Your task to perform on an android device: allow cookies in the chrome app Image 0: 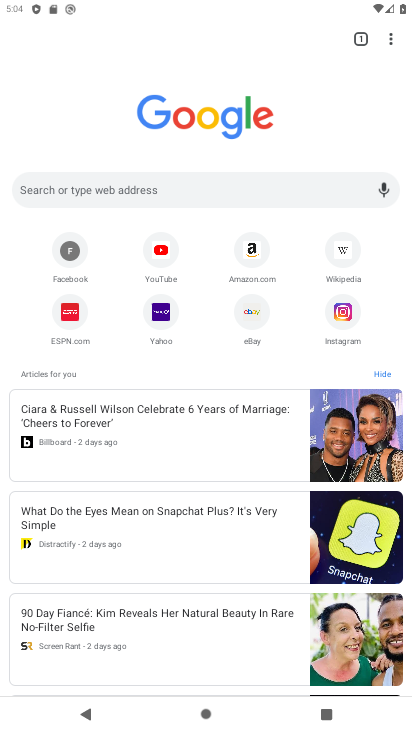
Step 0: press home button
Your task to perform on an android device: allow cookies in the chrome app Image 1: 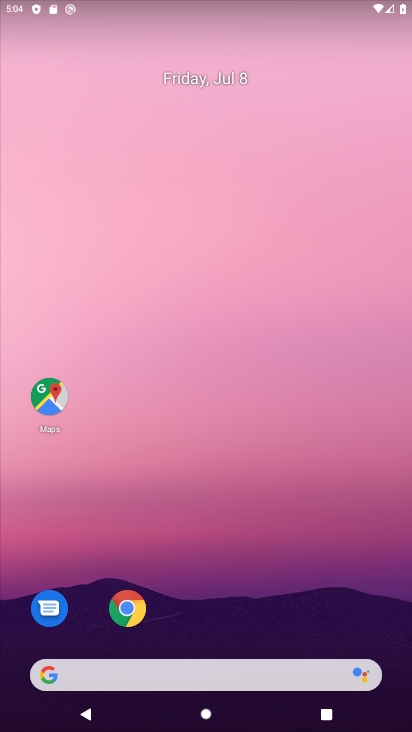
Step 1: drag from (104, 673) to (178, 183)
Your task to perform on an android device: allow cookies in the chrome app Image 2: 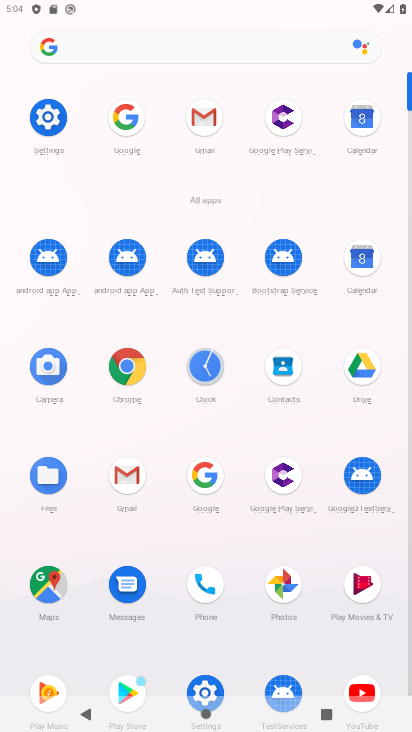
Step 2: click (127, 381)
Your task to perform on an android device: allow cookies in the chrome app Image 3: 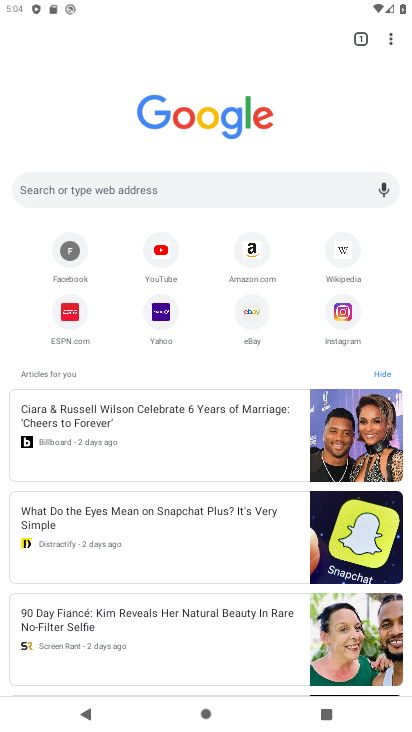
Step 3: drag from (389, 34) to (256, 330)
Your task to perform on an android device: allow cookies in the chrome app Image 4: 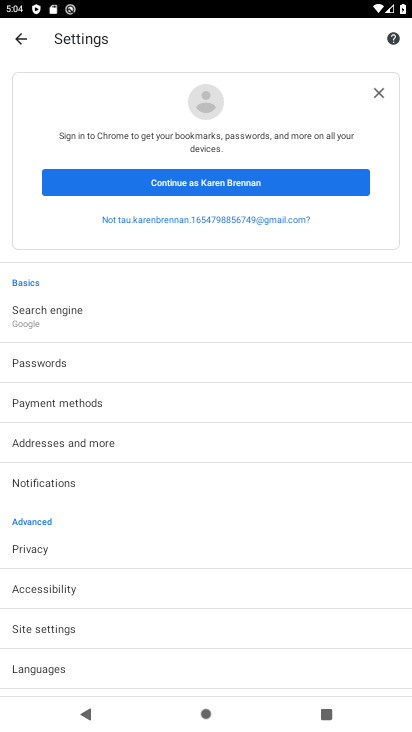
Step 4: click (116, 619)
Your task to perform on an android device: allow cookies in the chrome app Image 5: 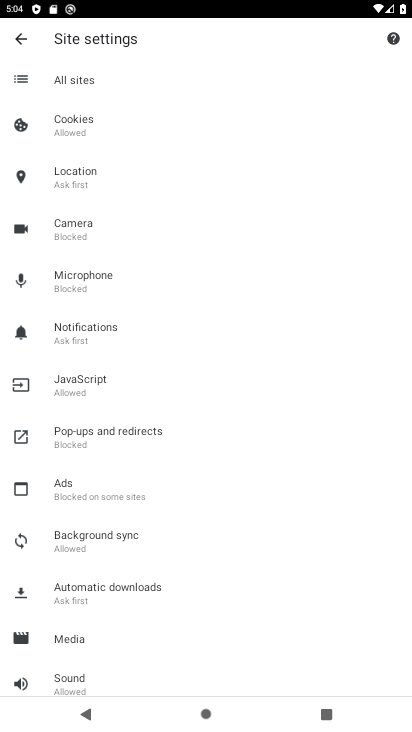
Step 5: click (78, 129)
Your task to perform on an android device: allow cookies in the chrome app Image 6: 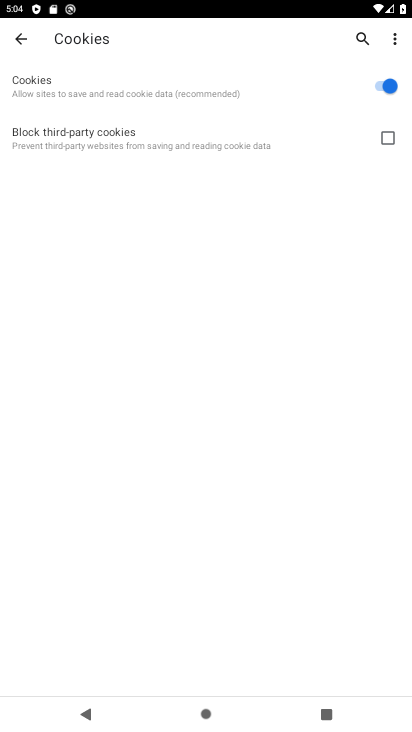
Step 6: task complete